Your task to perform on an android device: When is my next appointment? Image 0: 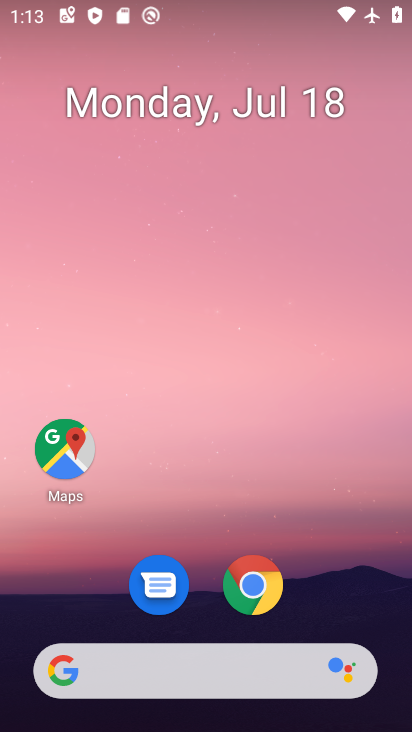
Step 0: drag from (167, 669) to (330, 35)
Your task to perform on an android device: When is my next appointment? Image 1: 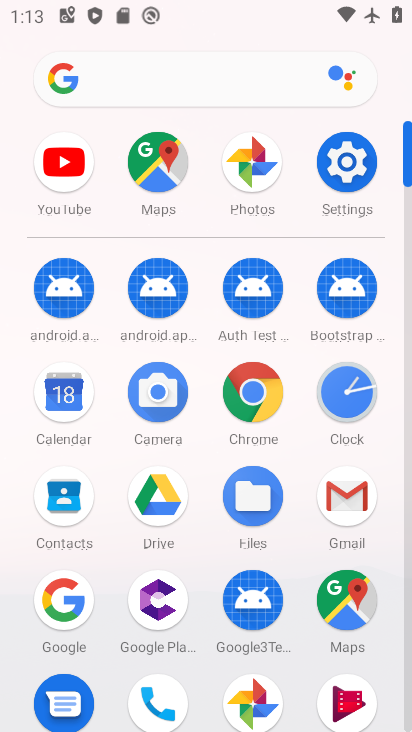
Step 1: click (55, 404)
Your task to perform on an android device: When is my next appointment? Image 2: 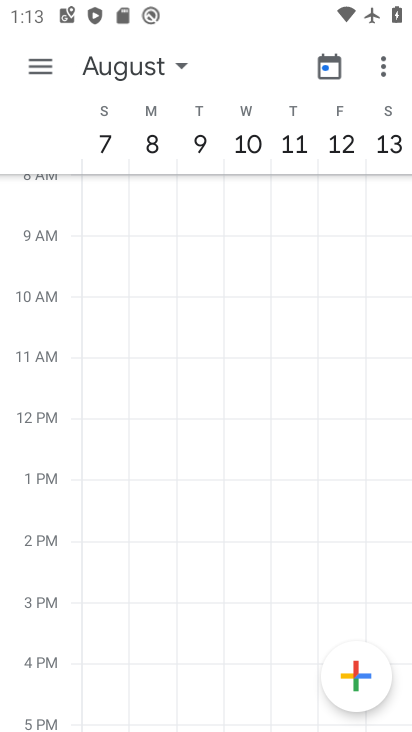
Step 2: click (98, 64)
Your task to perform on an android device: When is my next appointment? Image 3: 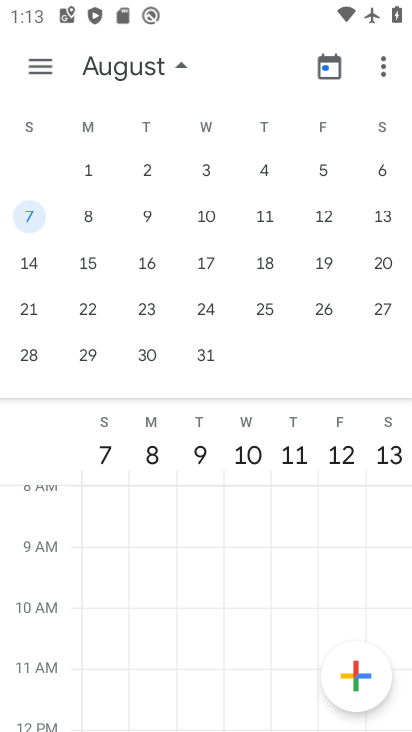
Step 3: drag from (62, 293) to (409, 406)
Your task to perform on an android device: When is my next appointment? Image 4: 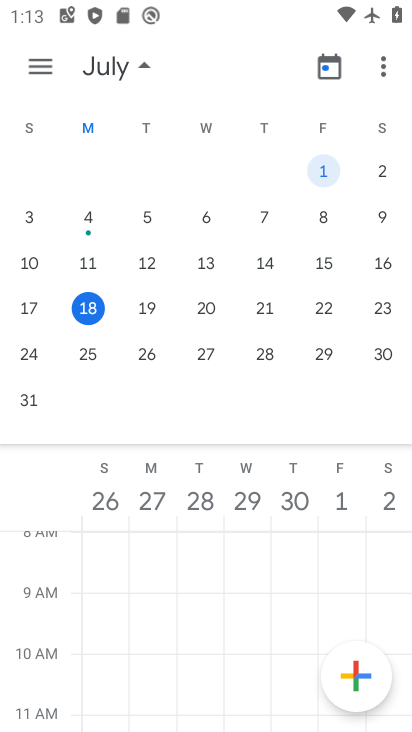
Step 4: click (79, 315)
Your task to perform on an android device: When is my next appointment? Image 5: 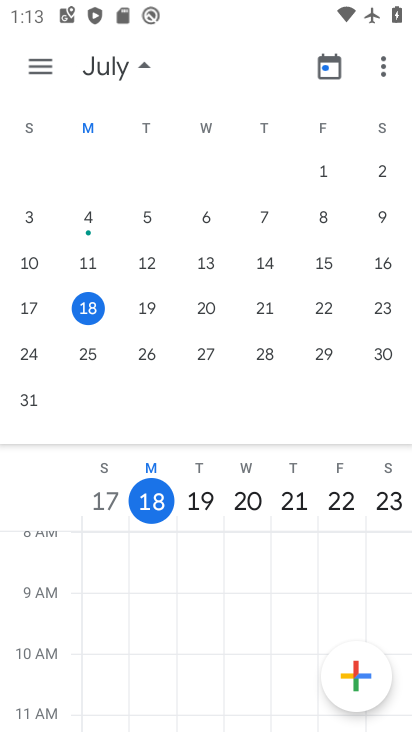
Step 5: click (48, 68)
Your task to perform on an android device: When is my next appointment? Image 6: 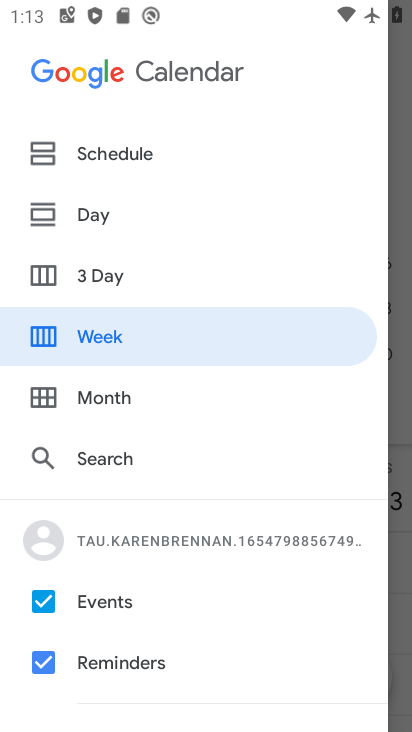
Step 6: click (128, 159)
Your task to perform on an android device: When is my next appointment? Image 7: 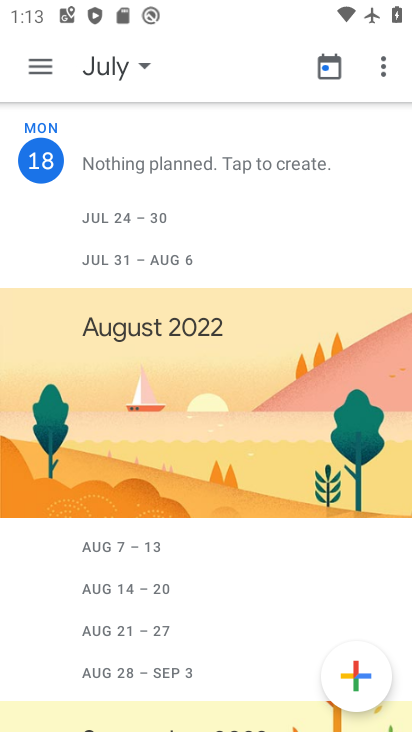
Step 7: task complete